Your task to perform on an android device: What's the weather? Image 0: 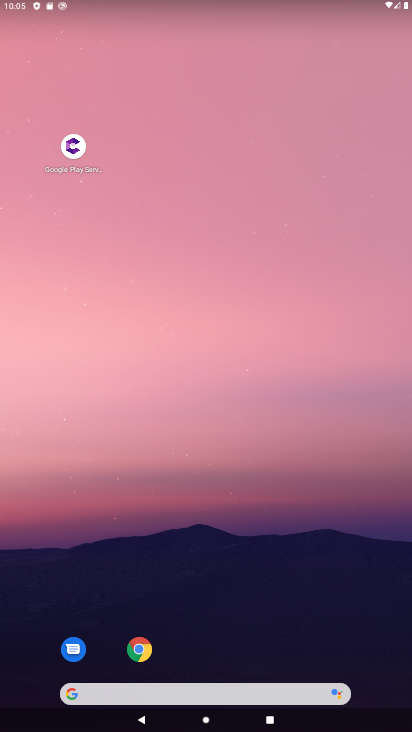
Step 0: click (244, 625)
Your task to perform on an android device: What's the weather? Image 1: 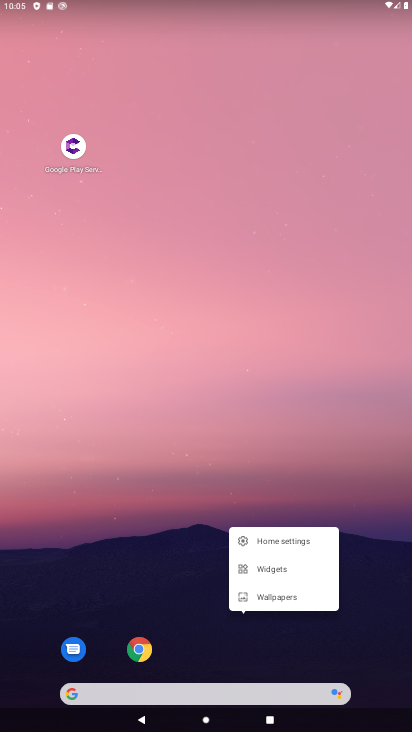
Step 1: drag from (113, 319) to (411, 316)
Your task to perform on an android device: What's the weather? Image 2: 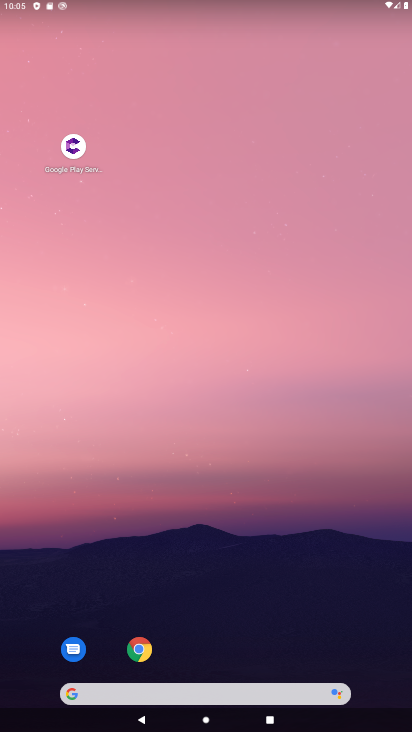
Step 2: drag from (381, 529) to (75, 462)
Your task to perform on an android device: What's the weather? Image 3: 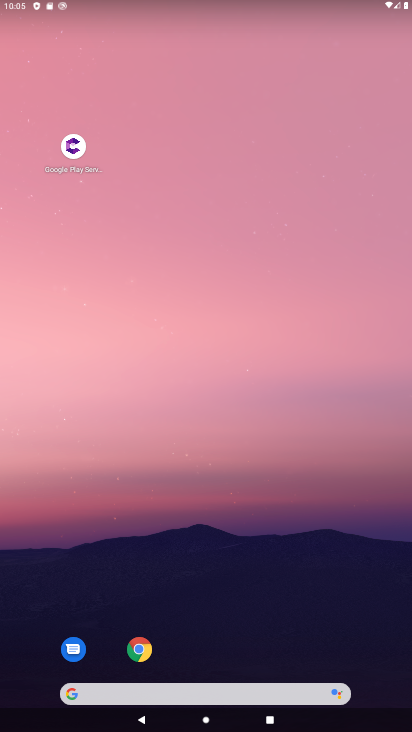
Step 3: click (210, 698)
Your task to perform on an android device: What's the weather? Image 4: 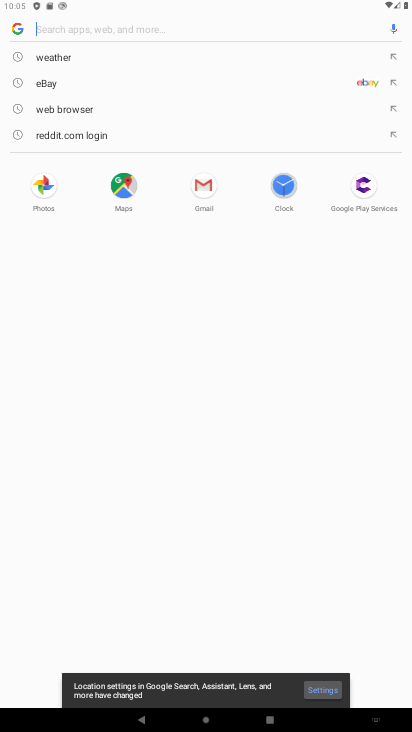
Step 4: click (67, 58)
Your task to perform on an android device: What's the weather? Image 5: 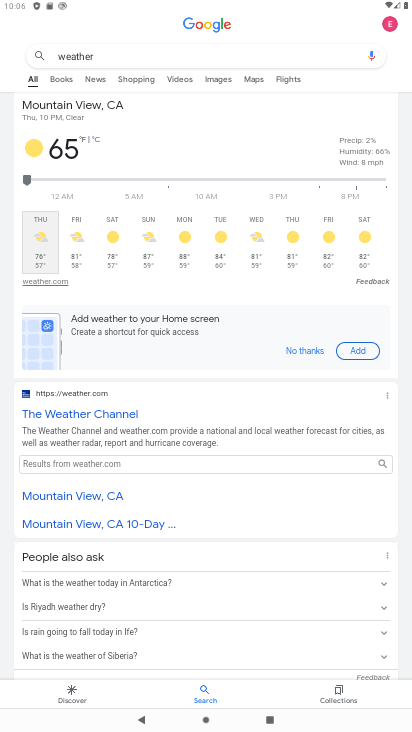
Step 5: task complete